Your task to perform on an android device: Open battery settings Image 0: 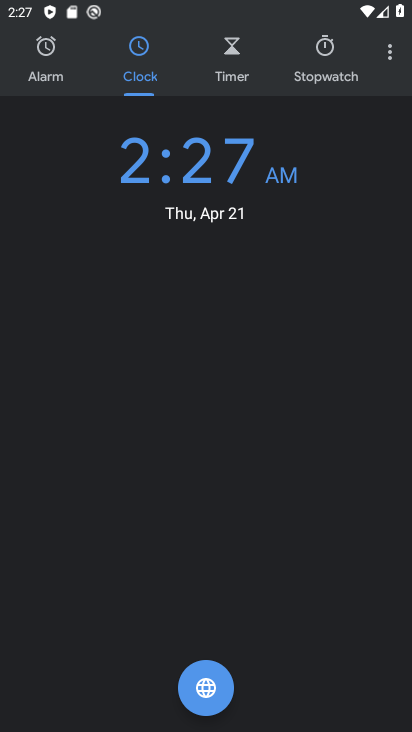
Step 0: press home button
Your task to perform on an android device: Open battery settings Image 1: 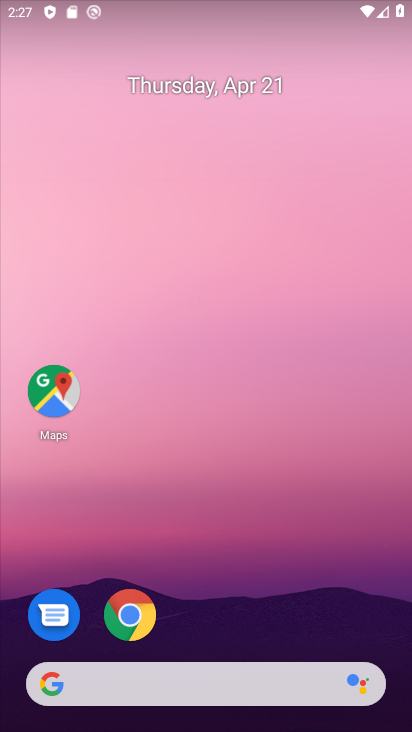
Step 1: drag from (225, 629) to (282, 337)
Your task to perform on an android device: Open battery settings Image 2: 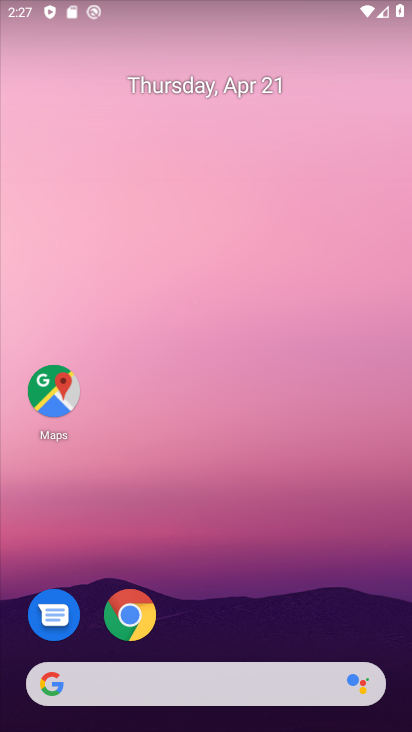
Step 2: drag from (256, 616) to (275, 123)
Your task to perform on an android device: Open battery settings Image 3: 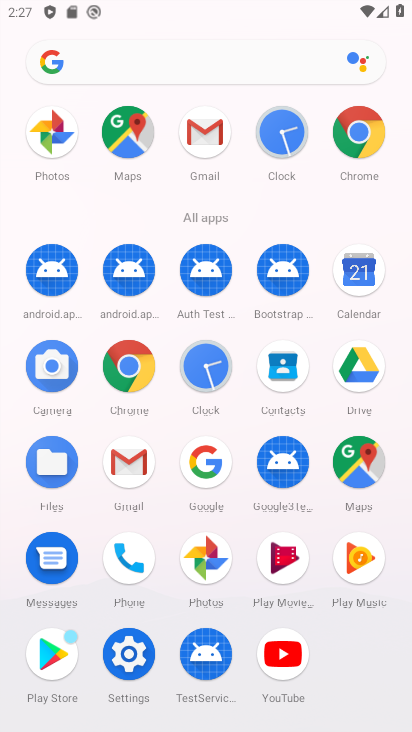
Step 3: click (116, 660)
Your task to perform on an android device: Open battery settings Image 4: 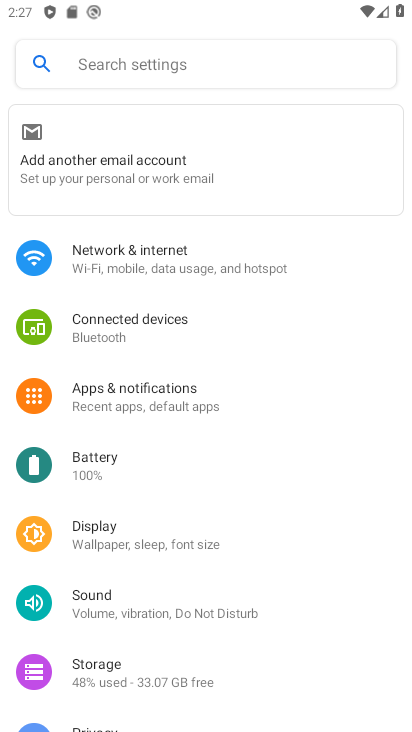
Step 4: click (57, 474)
Your task to perform on an android device: Open battery settings Image 5: 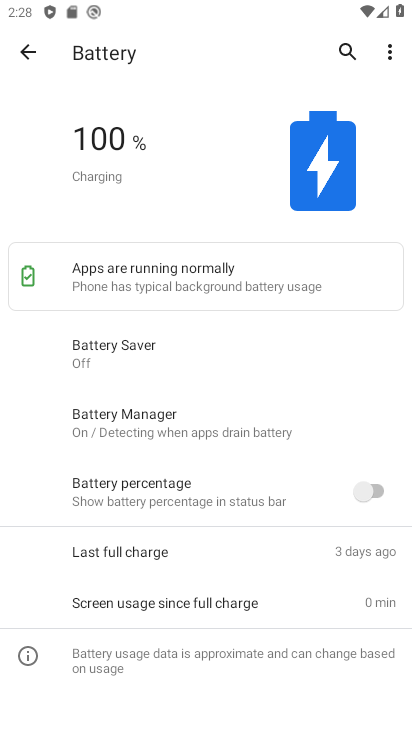
Step 5: task complete